Your task to perform on an android device: Search for Mexican restaurants on Maps Image 0: 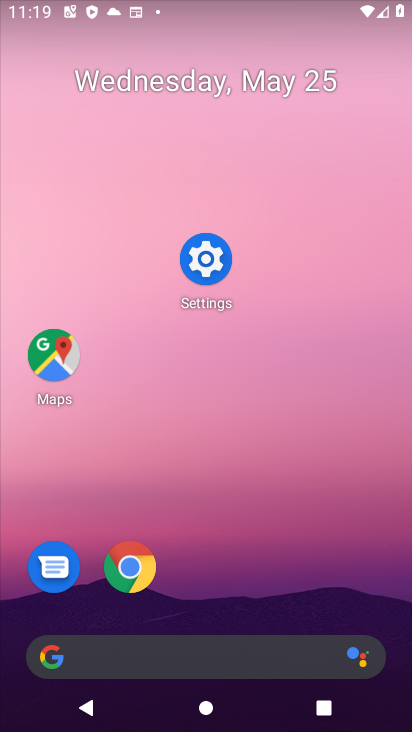
Step 0: click (63, 392)
Your task to perform on an android device: Search for Mexican restaurants on Maps Image 1: 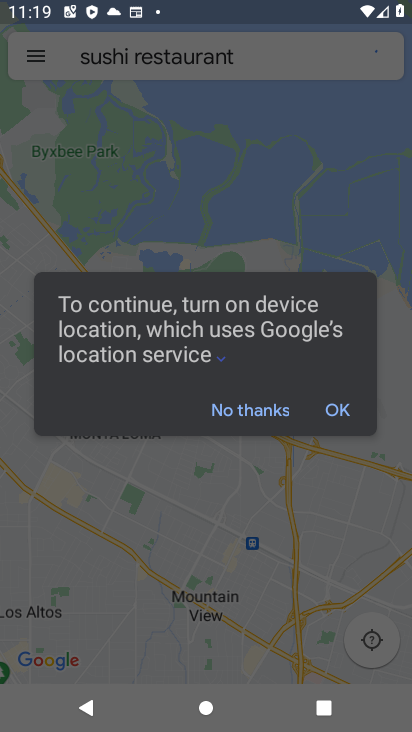
Step 1: click (341, 415)
Your task to perform on an android device: Search for Mexican restaurants on Maps Image 2: 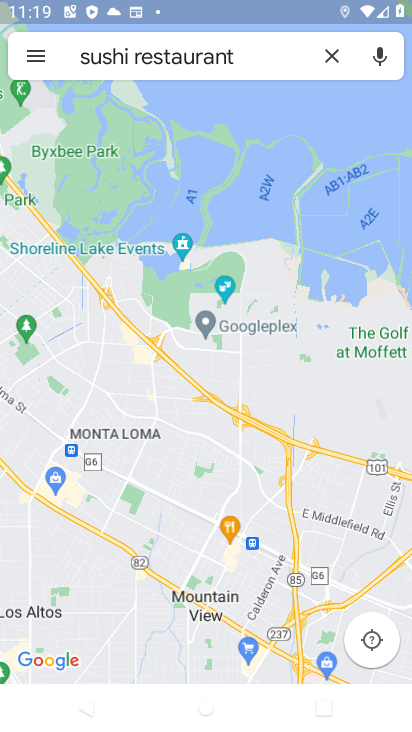
Step 2: click (341, 415)
Your task to perform on an android device: Search for Mexican restaurants on Maps Image 3: 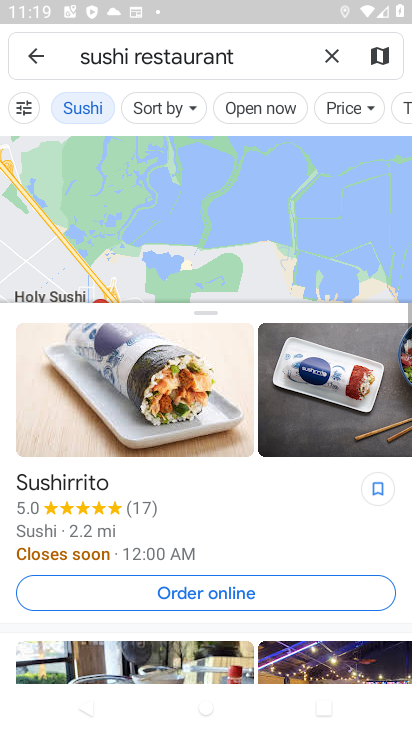
Step 3: click (333, 68)
Your task to perform on an android device: Search for Mexican restaurants on Maps Image 4: 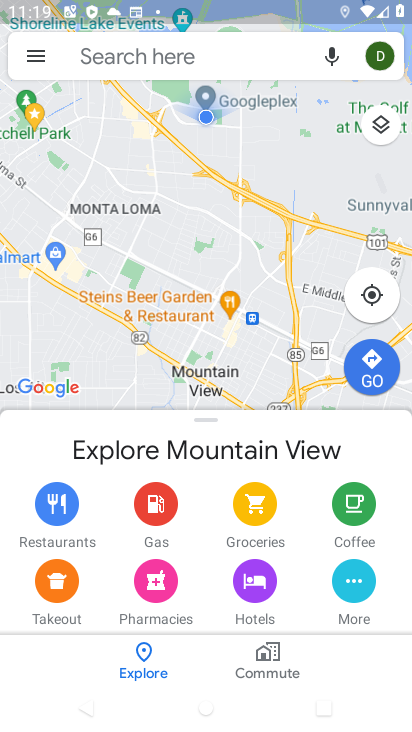
Step 4: click (189, 66)
Your task to perform on an android device: Search for Mexican restaurants on Maps Image 5: 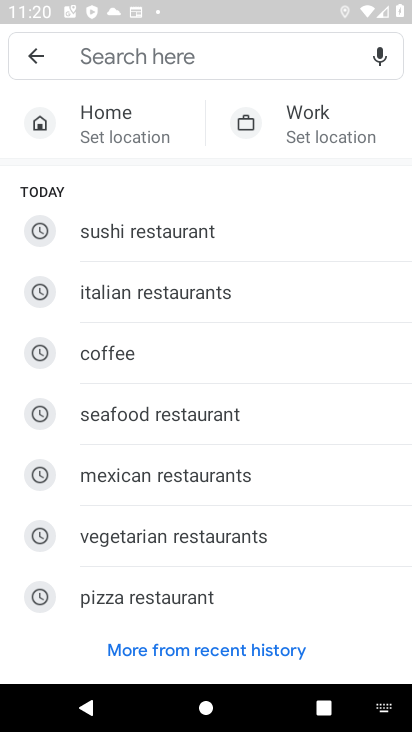
Step 5: click (184, 462)
Your task to perform on an android device: Search for Mexican restaurants on Maps Image 6: 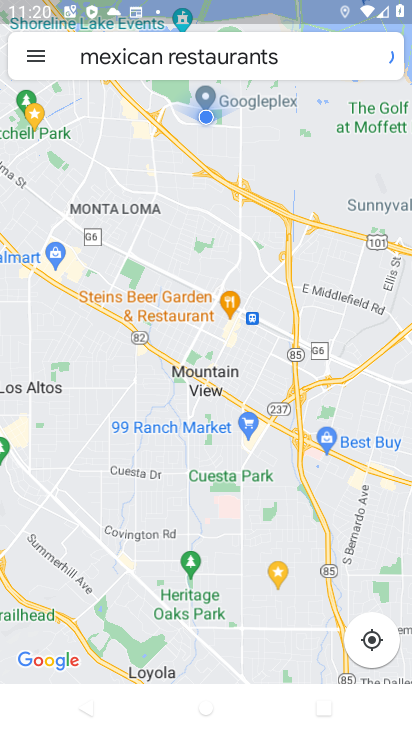
Step 6: task complete